Your task to perform on an android device: What is the news today? Image 0: 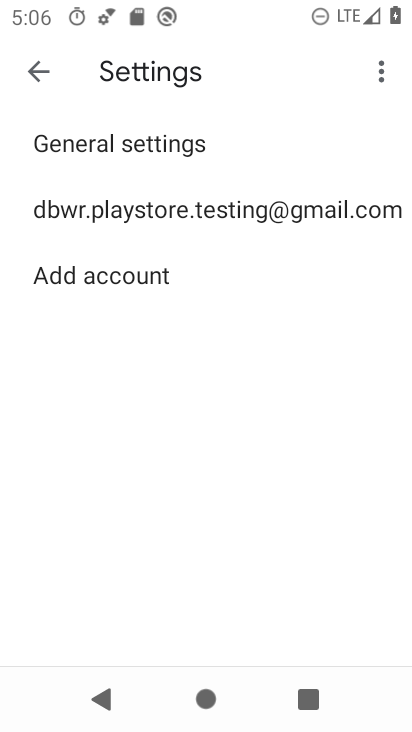
Step 0: press back button
Your task to perform on an android device: What is the news today? Image 1: 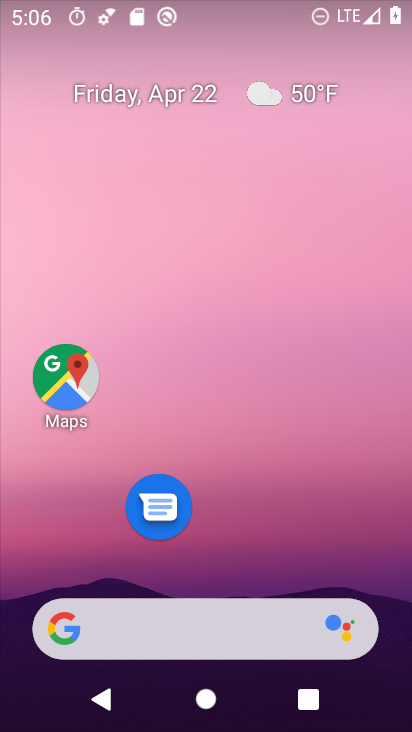
Step 1: click (180, 619)
Your task to perform on an android device: What is the news today? Image 2: 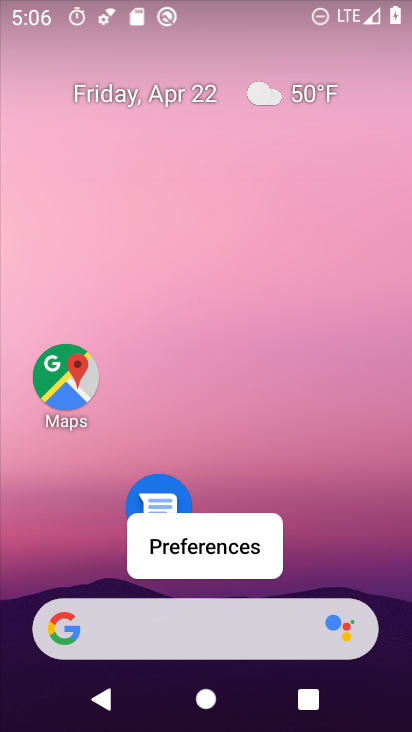
Step 2: click (194, 629)
Your task to perform on an android device: What is the news today? Image 3: 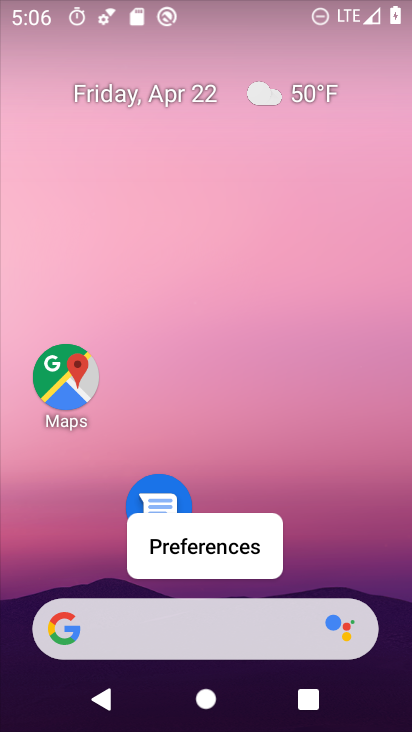
Step 3: click (195, 637)
Your task to perform on an android device: What is the news today? Image 4: 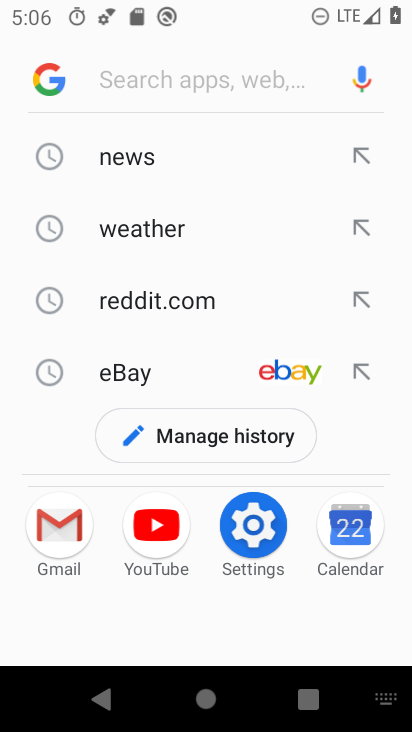
Step 4: click (169, 619)
Your task to perform on an android device: What is the news today? Image 5: 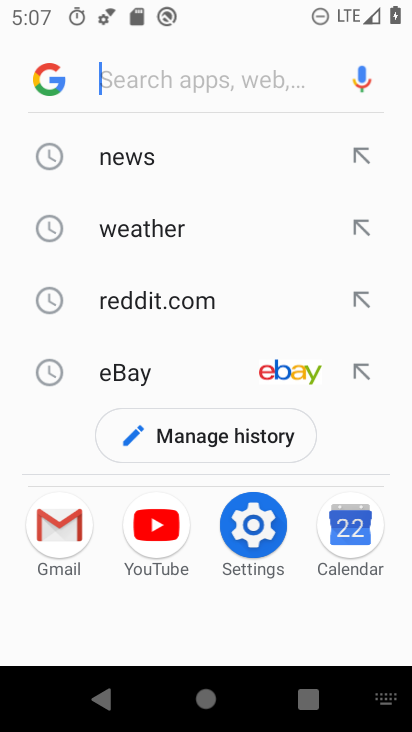
Step 5: type "news today"
Your task to perform on an android device: What is the news today? Image 6: 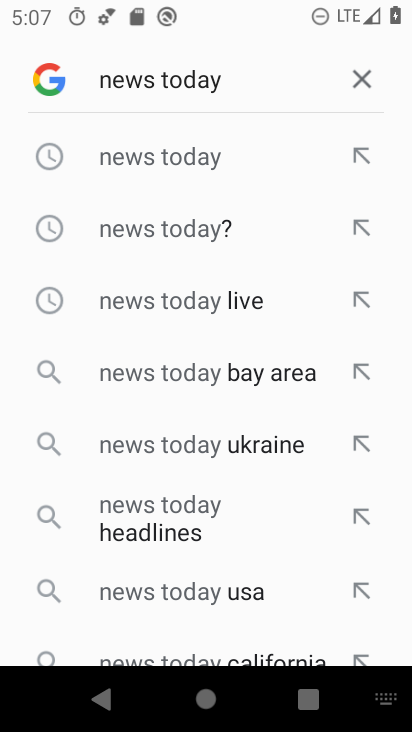
Step 6: click (163, 156)
Your task to perform on an android device: What is the news today? Image 7: 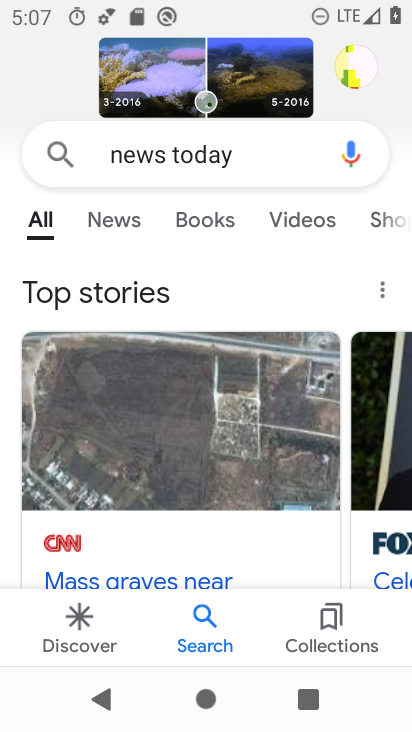
Step 7: task complete